Your task to perform on an android device: What's the price of the EGO 14-in 56-Volt Brushless Cordless Chainsaw? Image 0: 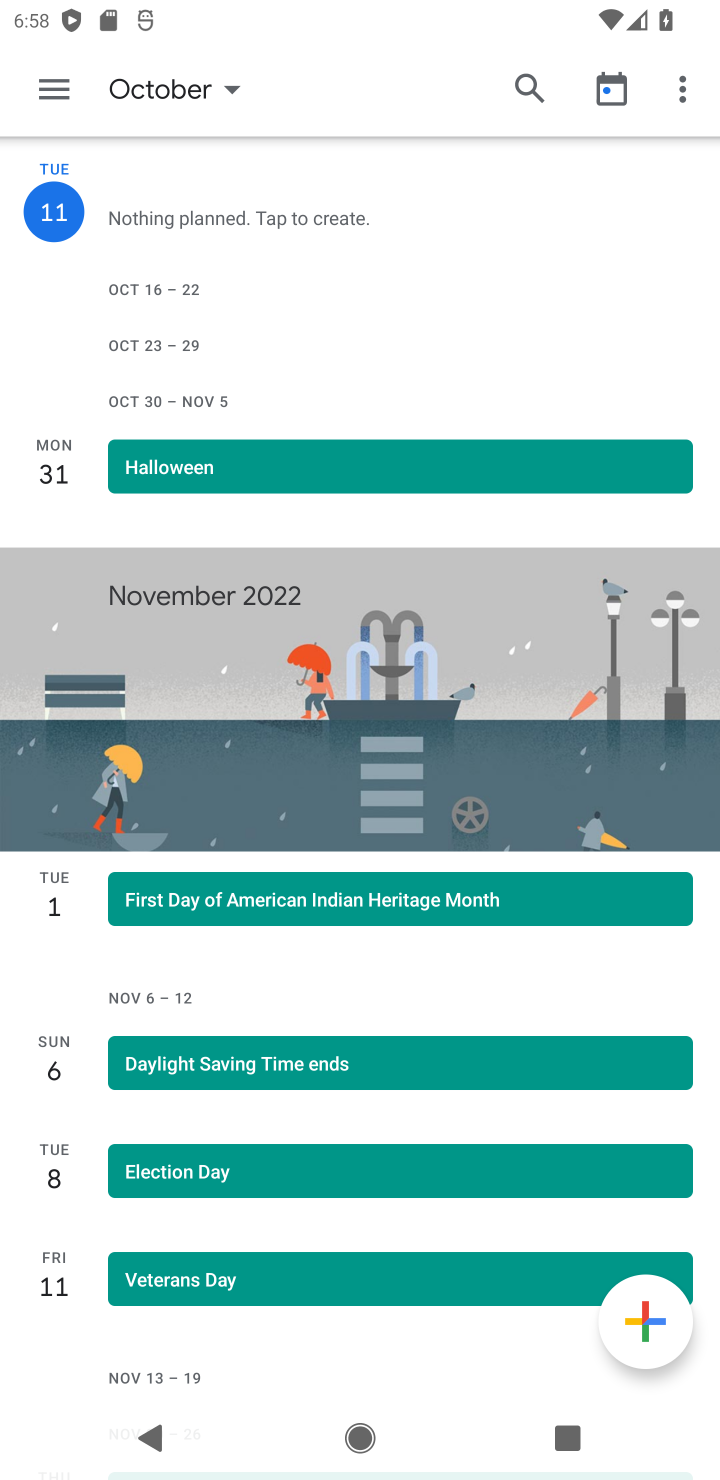
Step 0: press home button
Your task to perform on an android device: What's the price of the EGO 14-in 56-Volt Brushless Cordless Chainsaw? Image 1: 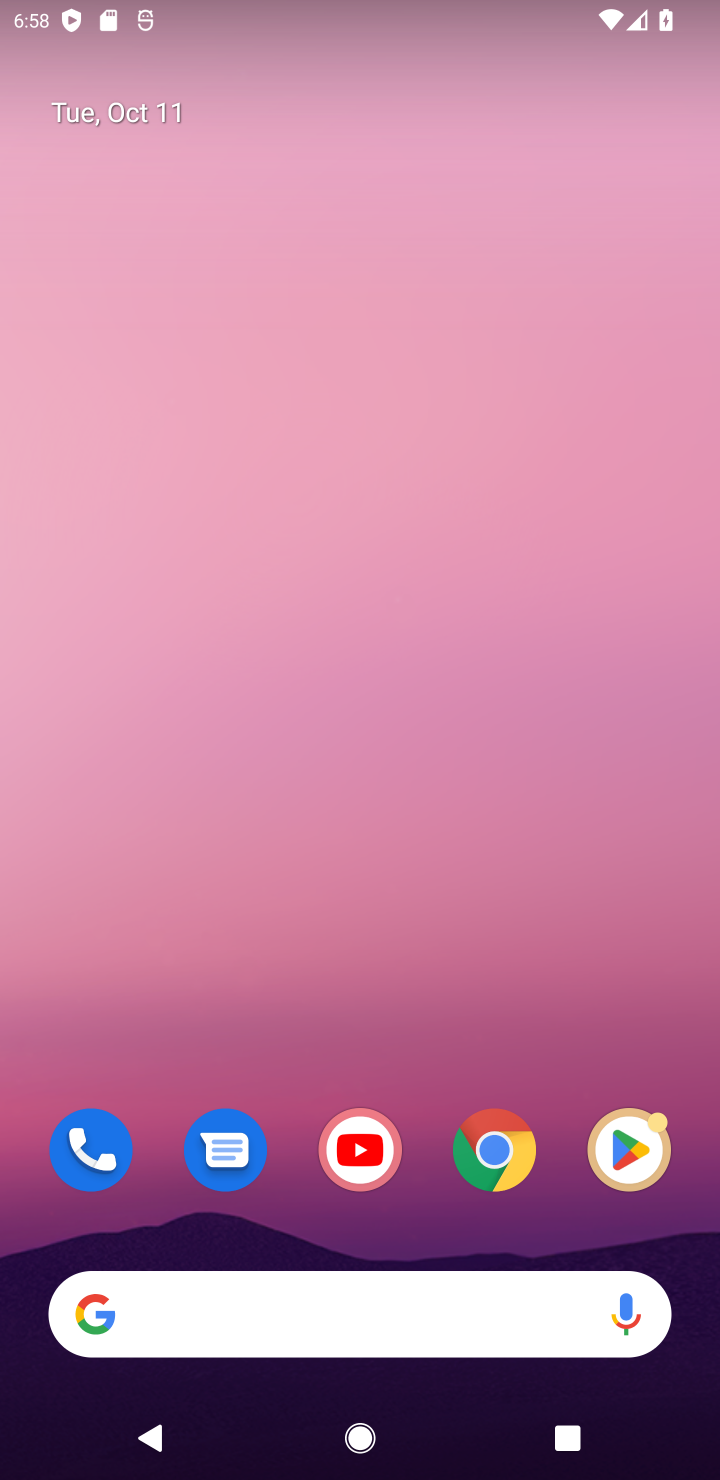
Step 1: click (492, 1178)
Your task to perform on an android device: What's the price of the EGO 14-in 56-Volt Brushless Cordless Chainsaw? Image 2: 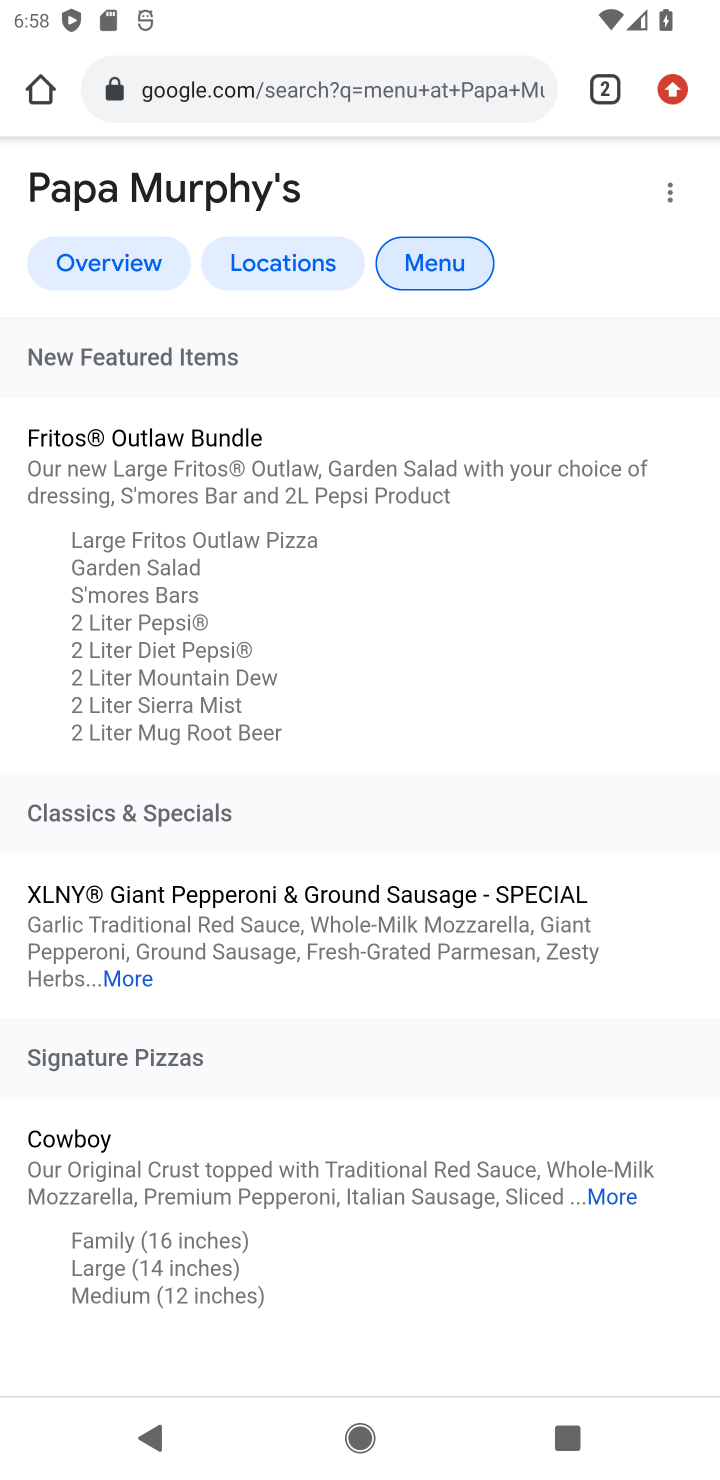
Step 2: click (249, 90)
Your task to perform on an android device: What's the price of the EGO 14-in 56-Volt Brushless Cordless Chainsaw? Image 3: 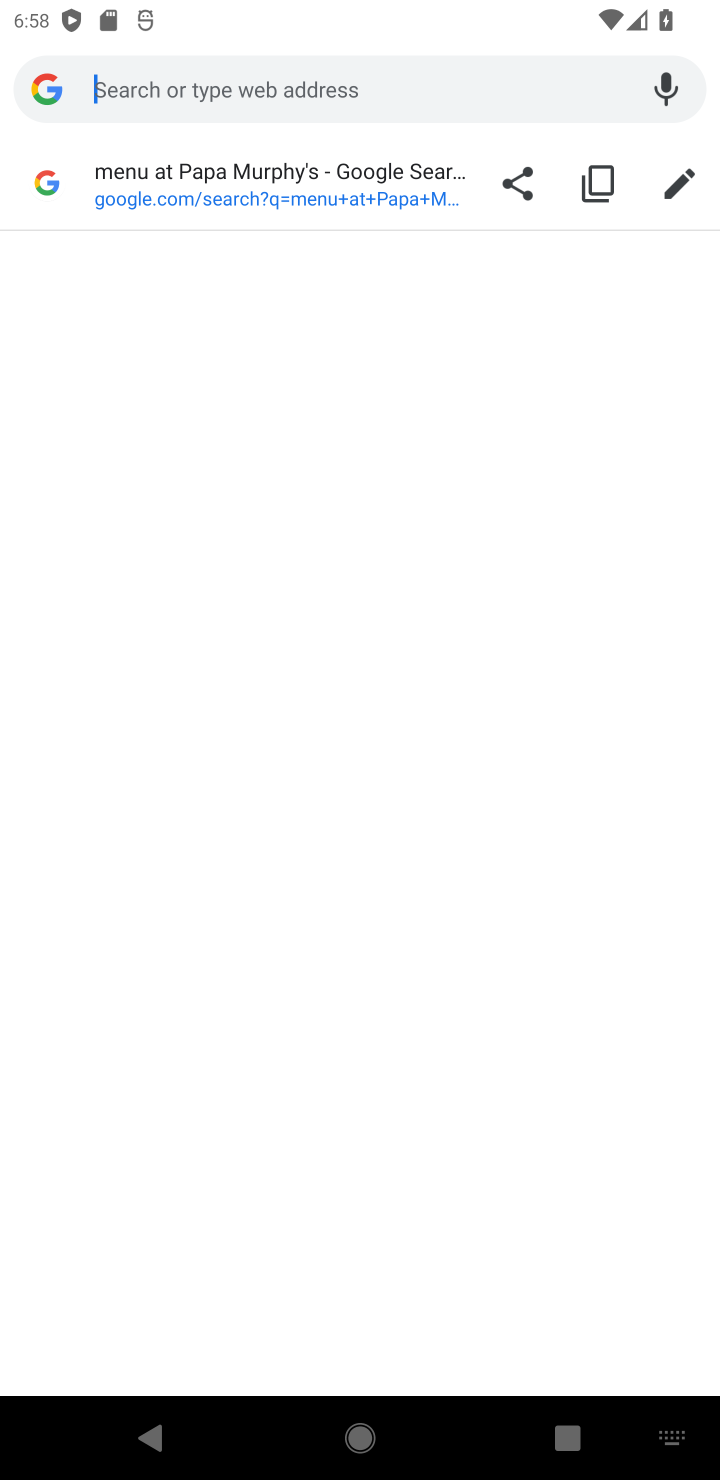
Step 3: type " price of the EGO 14-in 56-Volt Brushless Cordless Chainsaw"
Your task to perform on an android device: What's the price of the EGO 14-in 56-Volt Brushless Cordless Chainsaw? Image 4: 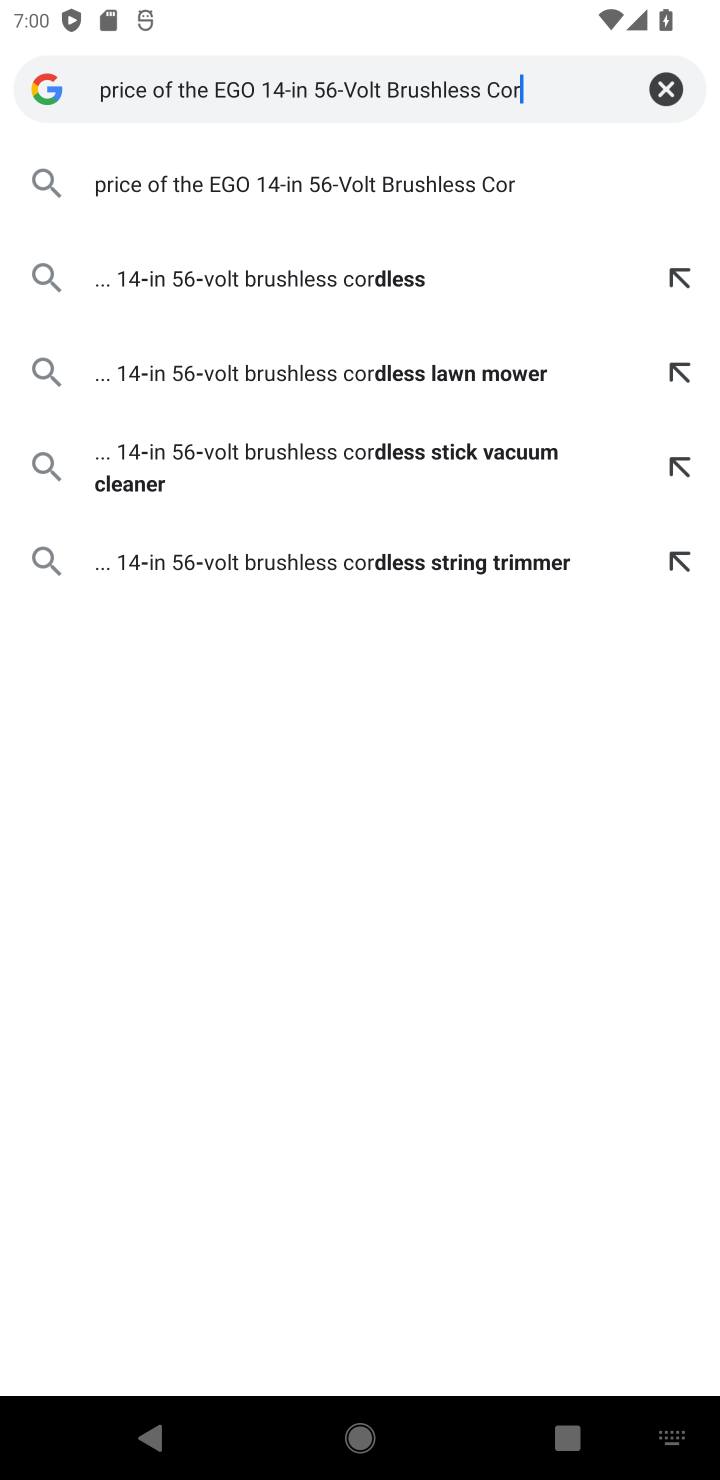
Step 4: type "dless chainsaw"
Your task to perform on an android device: What's the price of the EGO 14-in 56-Volt Brushless Cordless Chainsaw? Image 5: 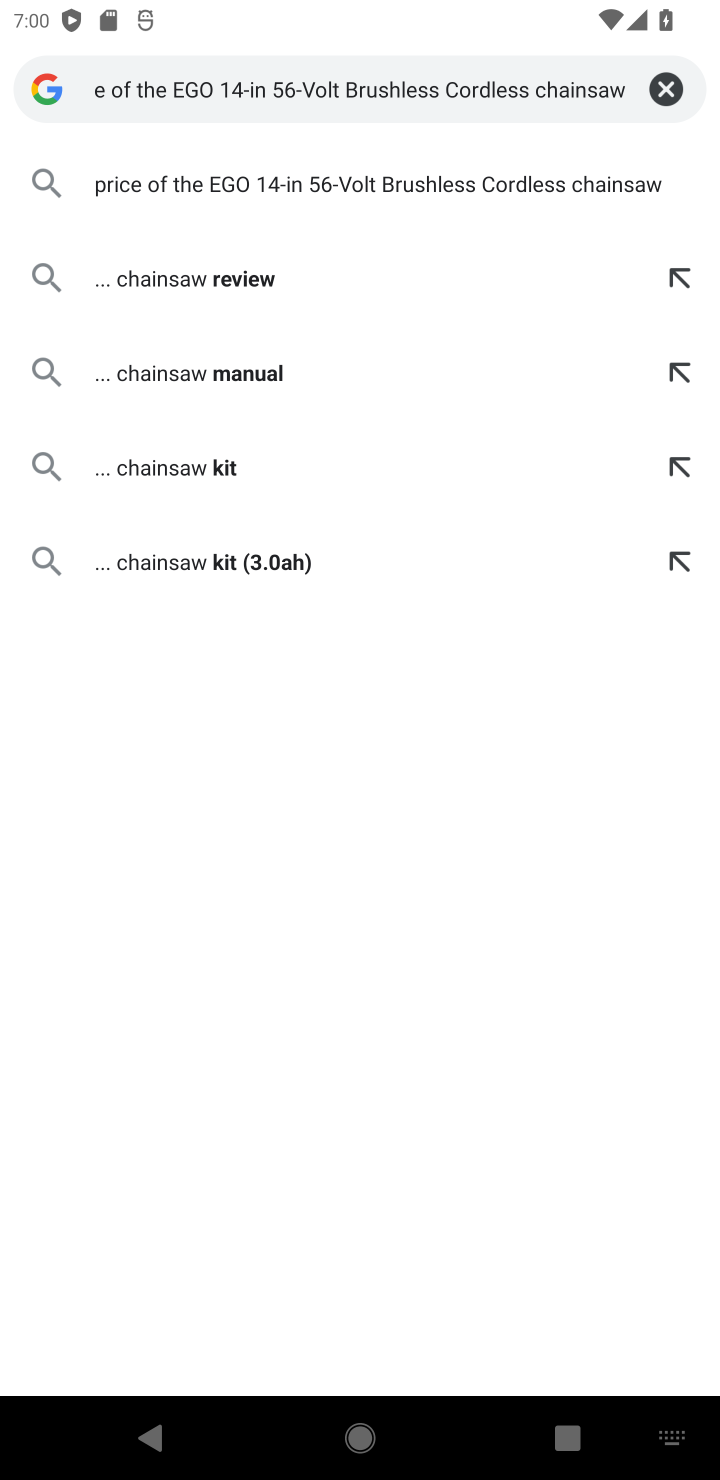
Step 5: click (316, 193)
Your task to perform on an android device: What's the price of the EGO 14-in 56-Volt Brushless Cordless Chainsaw? Image 6: 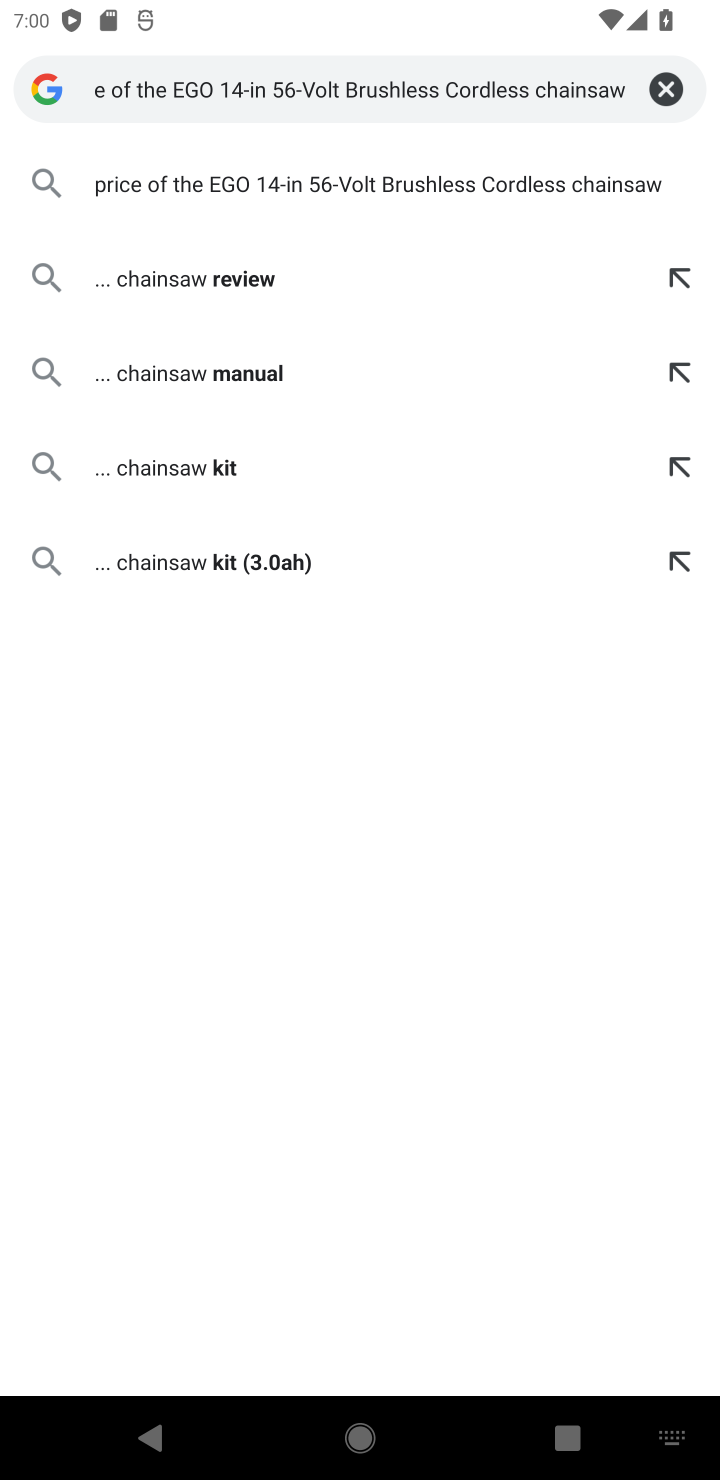
Step 6: click (250, 189)
Your task to perform on an android device: What's the price of the EGO 14-in 56-Volt Brushless Cordless Chainsaw? Image 7: 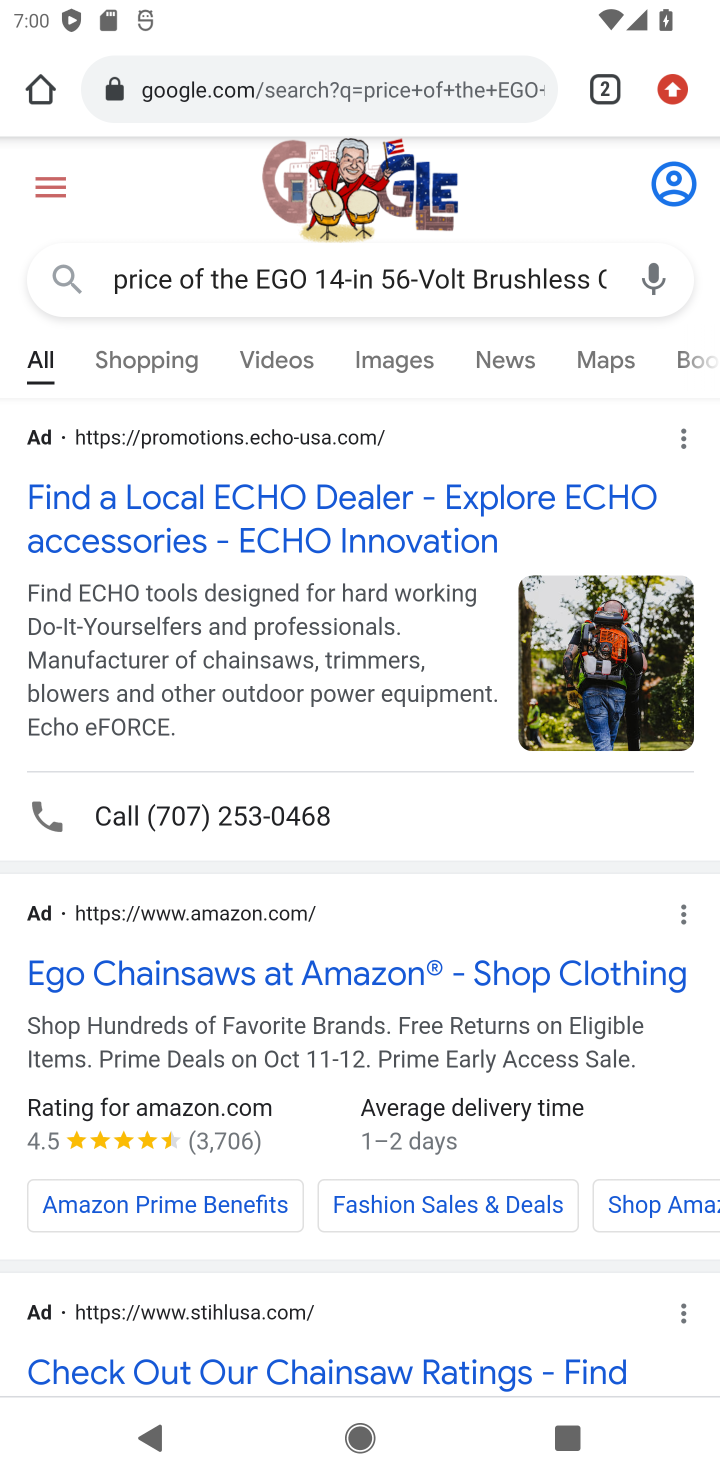
Step 7: drag from (364, 826) to (338, 477)
Your task to perform on an android device: What's the price of the EGO 14-in 56-Volt Brushless Cordless Chainsaw? Image 8: 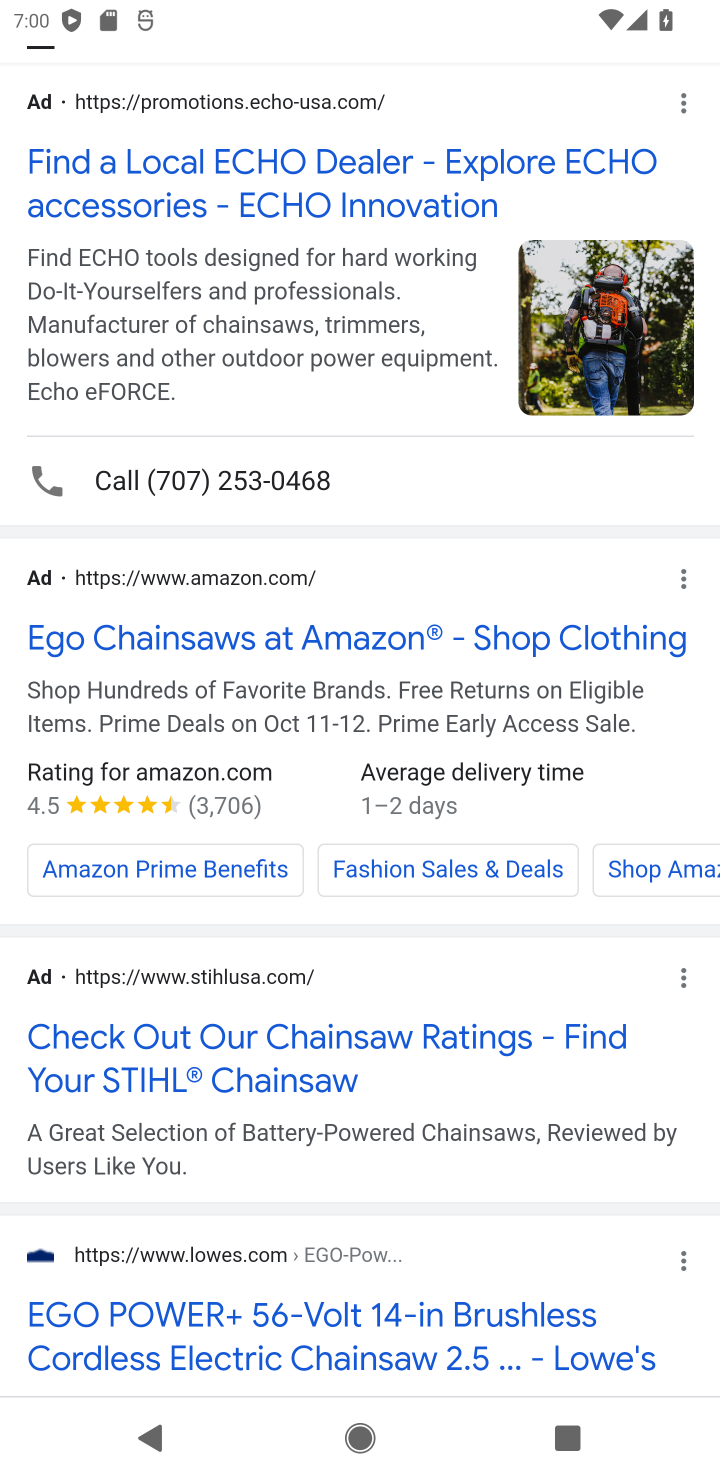
Step 8: drag from (372, 955) to (330, 511)
Your task to perform on an android device: What's the price of the EGO 14-in 56-Volt Brushless Cordless Chainsaw? Image 9: 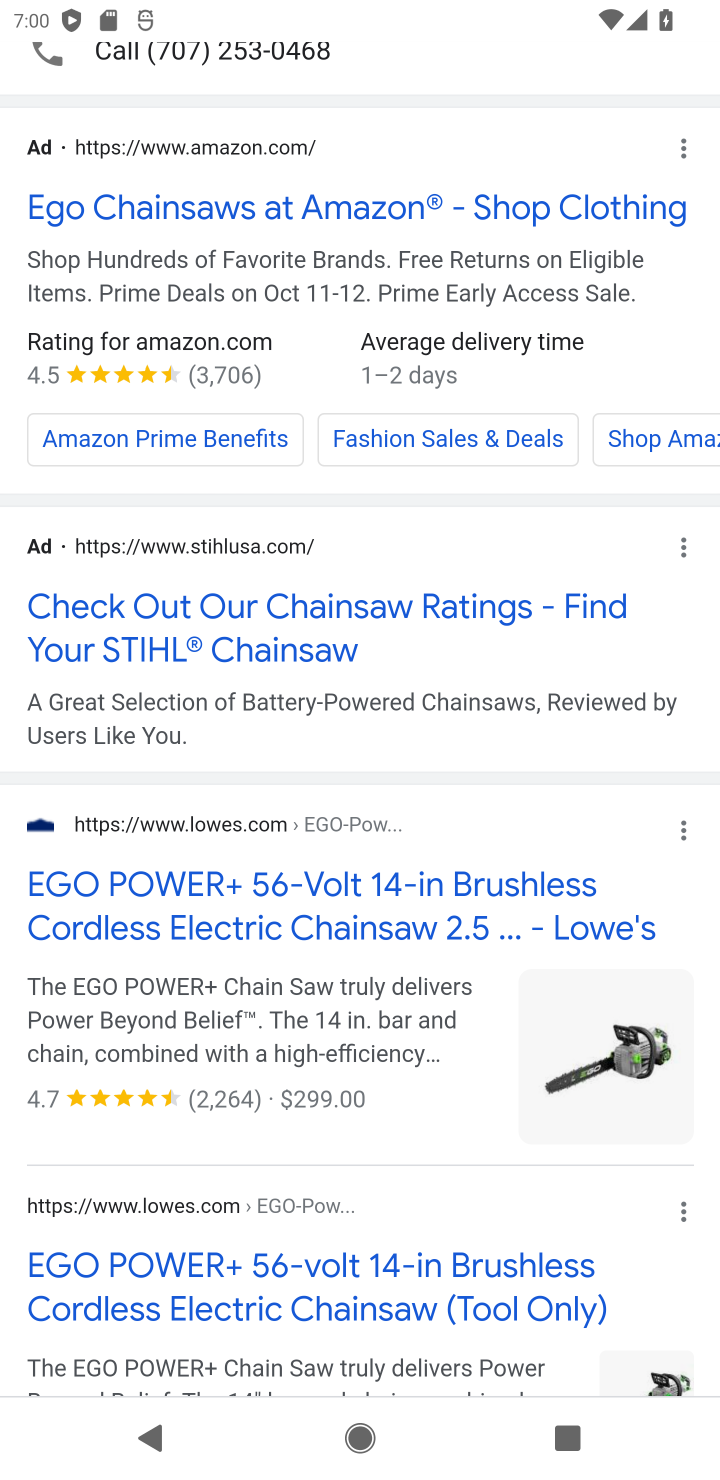
Step 9: click (275, 904)
Your task to perform on an android device: What's the price of the EGO 14-in 56-Volt Brushless Cordless Chainsaw? Image 10: 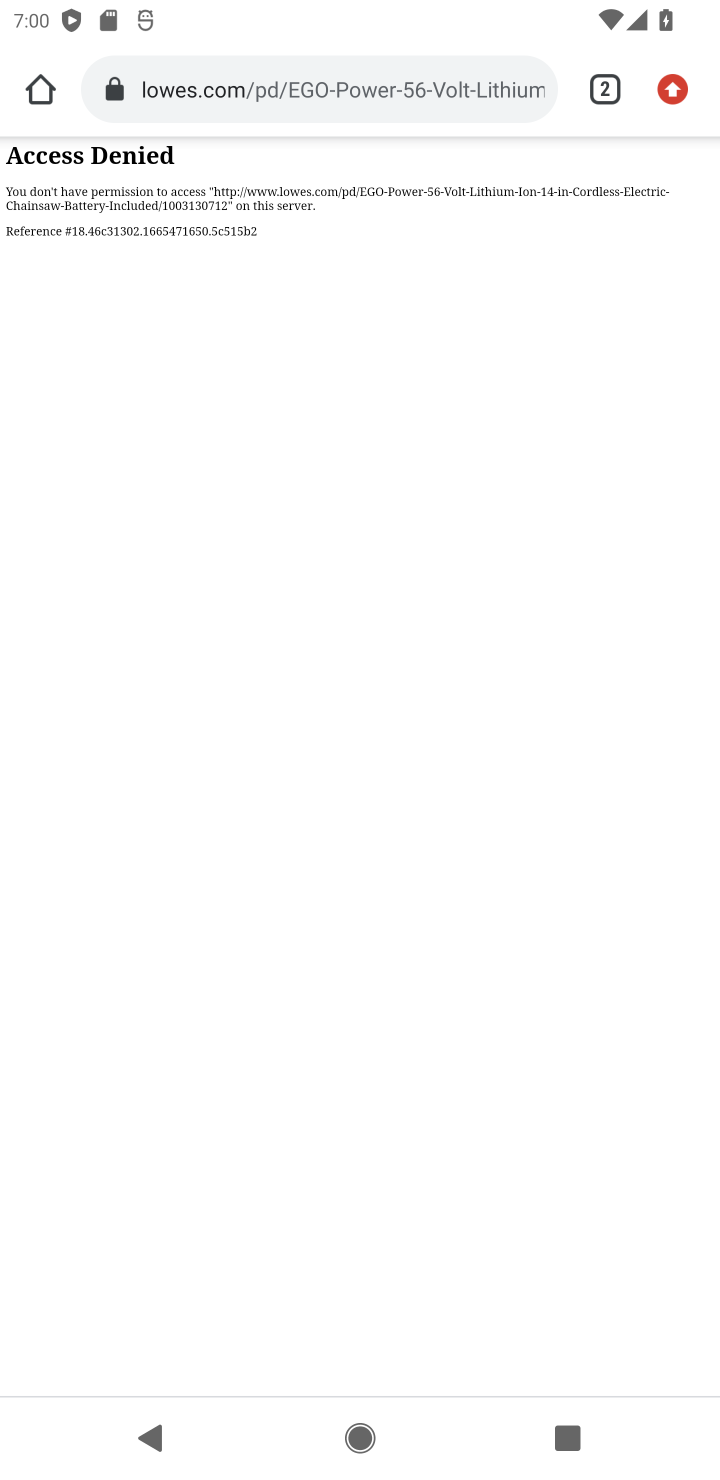
Step 10: press back button
Your task to perform on an android device: What's the price of the EGO 14-in 56-Volt Brushless Cordless Chainsaw? Image 11: 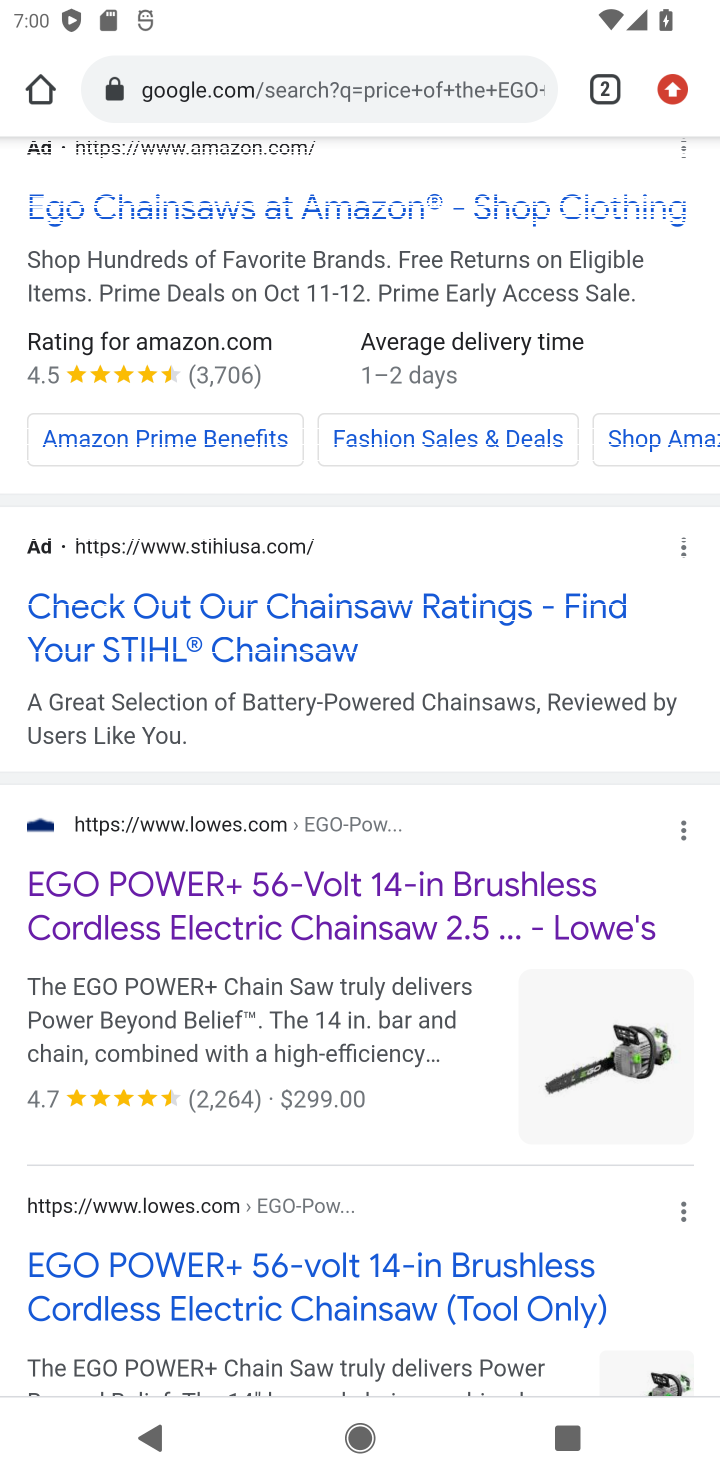
Step 11: drag from (258, 697) to (253, 1020)
Your task to perform on an android device: What's the price of the EGO 14-in 56-Volt Brushless Cordless Chainsaw? Image 12: 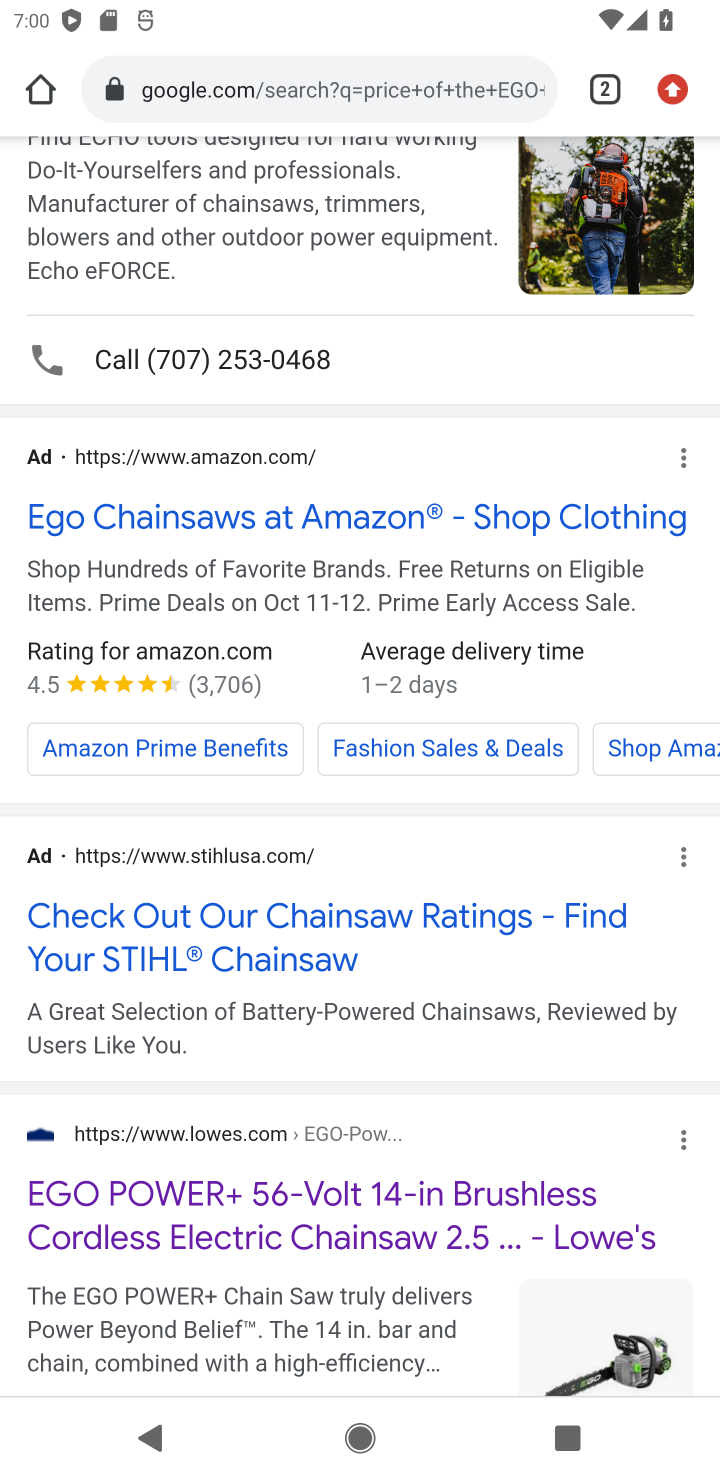
Step 12: drag from (251, 667) to (260, 968)
Your task to perform on an android device: What's the price of the EGO 14-in 56-Volt Brushless Cordless Chainsaw? Image 13: 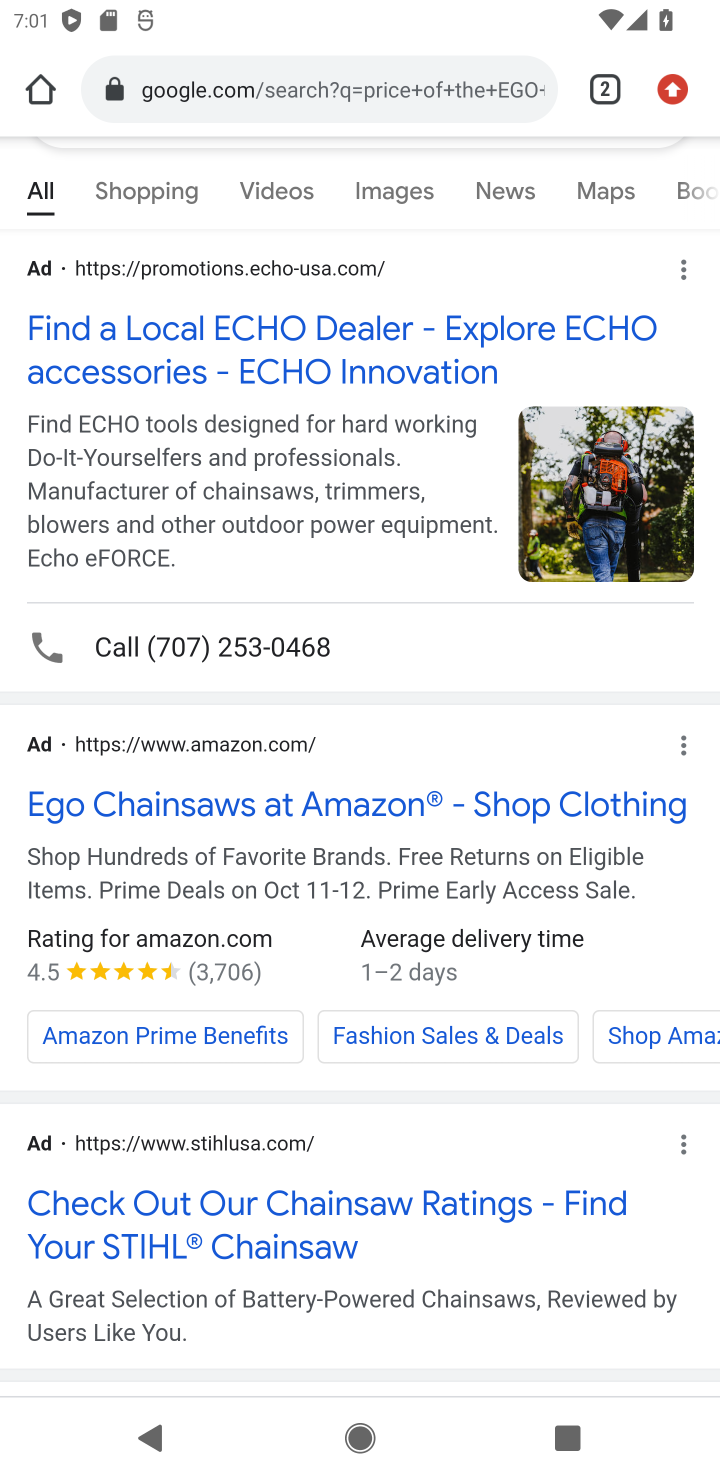
Step 13: click (197, 371)
Your task to perform on an android device: What's the price of the EGO 14-in 56-Volt Brushless Cordless Chainsaw? Image 14: 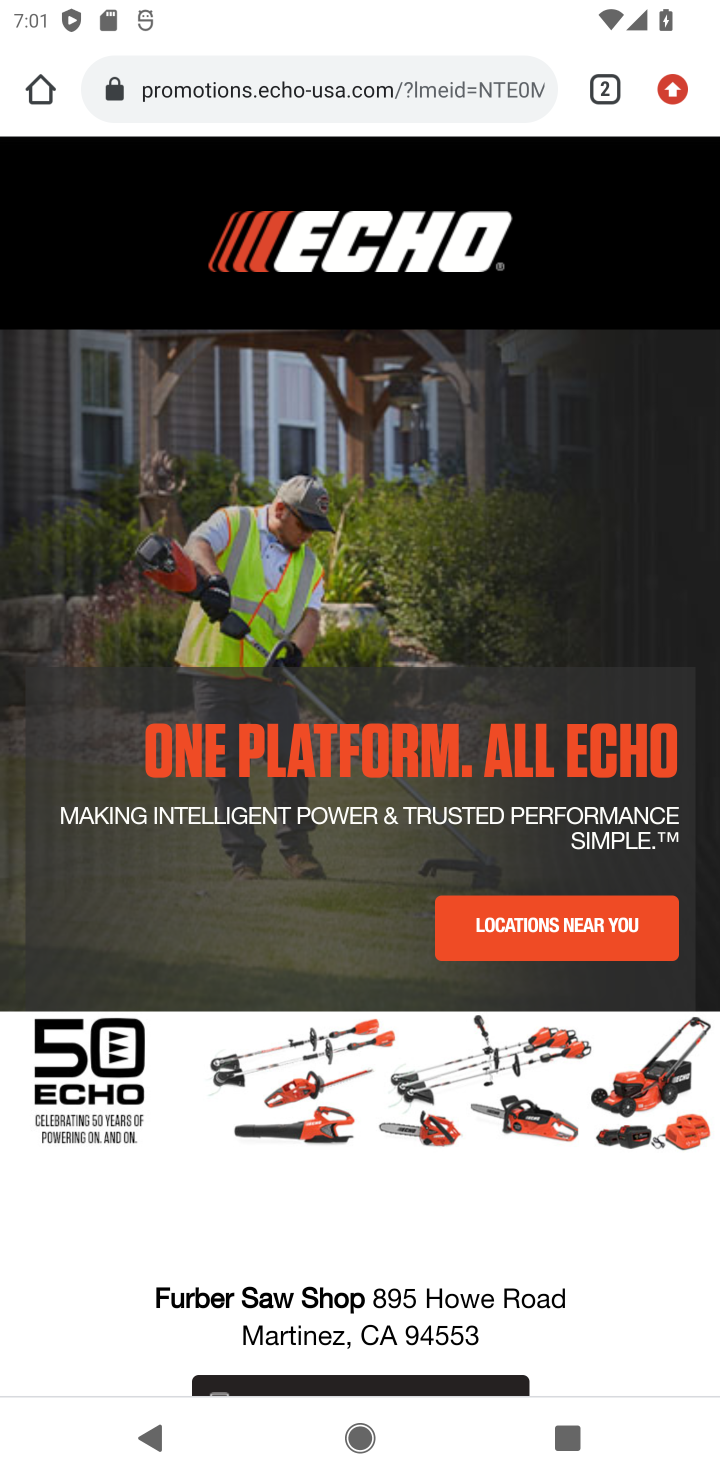
Step 14: drag from (402, 1005) to (347, 491)
Your task to perform on an android device: What's the price of the EGO 14-in 56-Volt Brushless Cordless Chainsaw? Image 15: 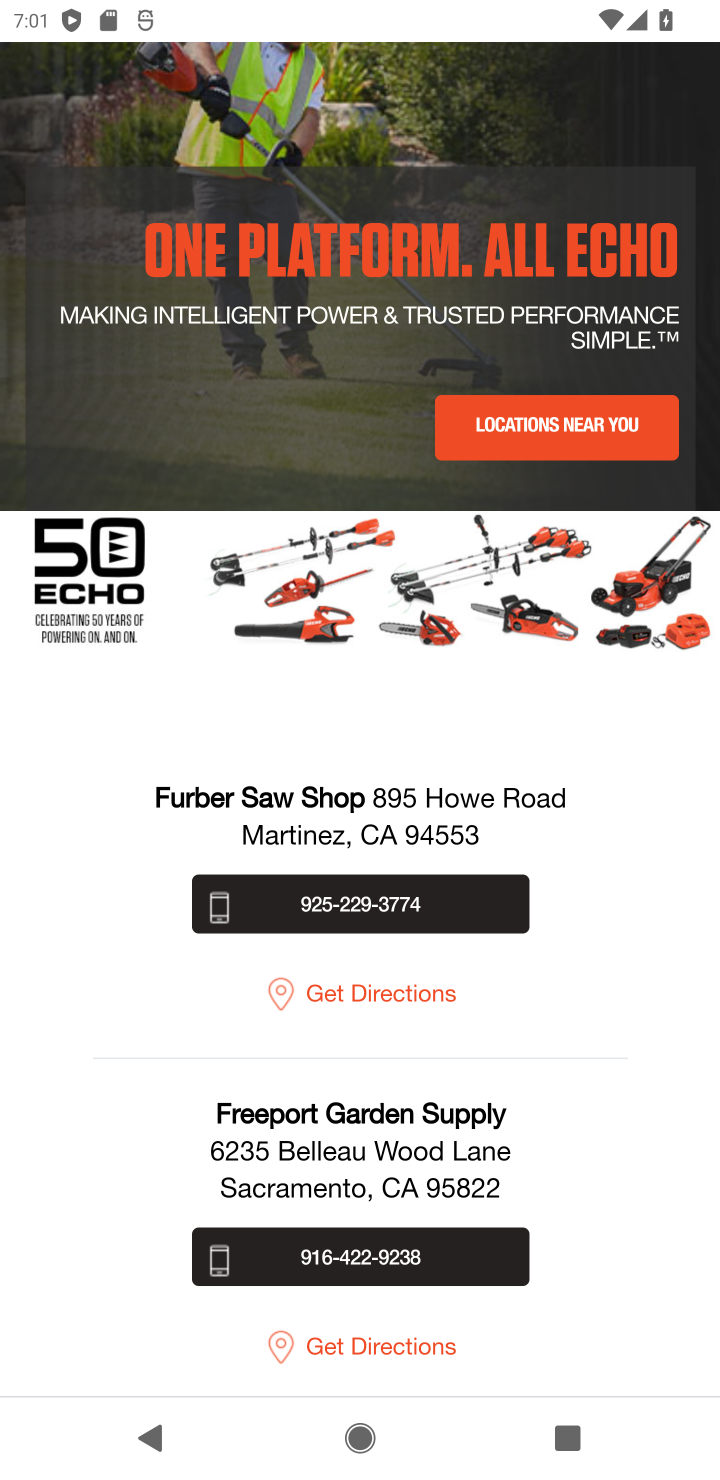
Step 15: press back button
Your task to perform on an android device: What's the price of the EGO 14-in 56-Volt Brushless Cordless Chainsaw? Image 16: 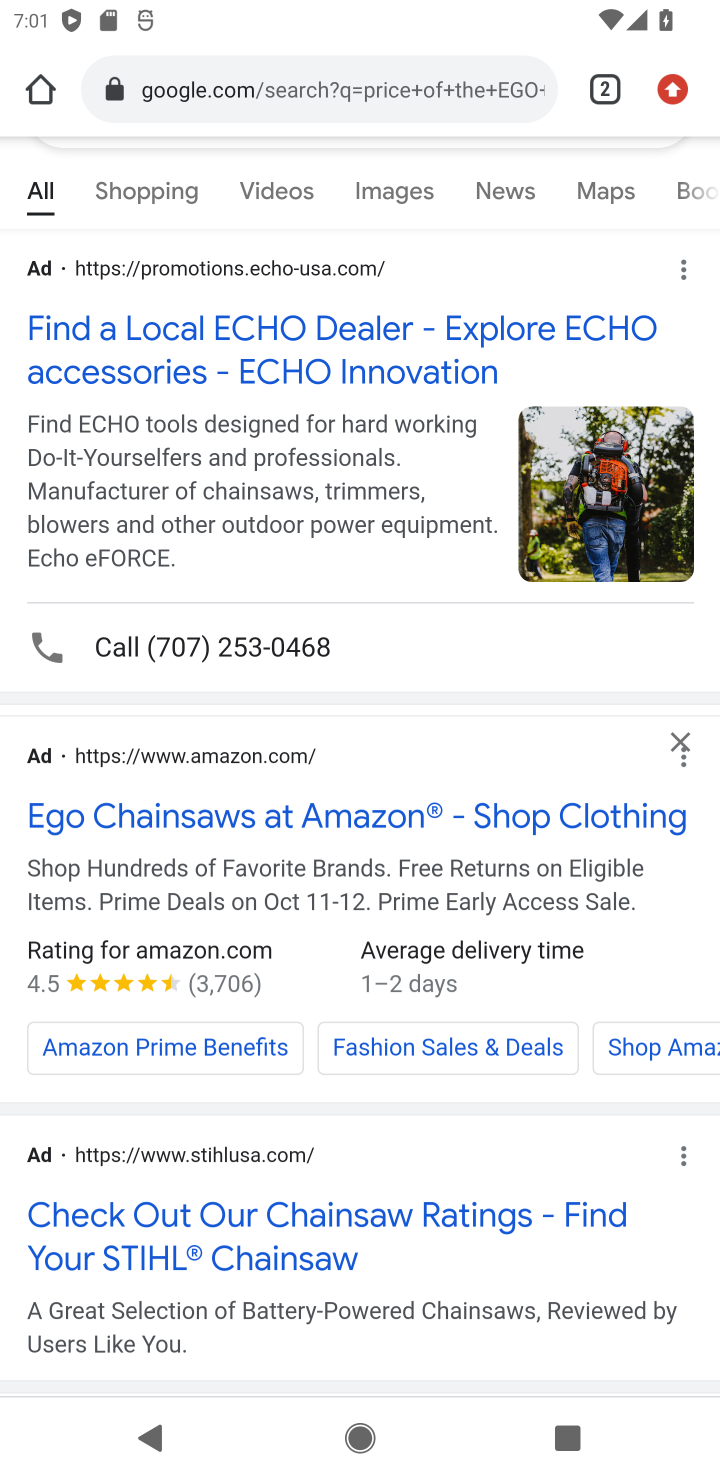
Step 16: click (151, 191)
Your task to perform on an android device: What's the price of the EGO 14-in 56-Volt Brushless Cordless Chainsaw? Image 17: 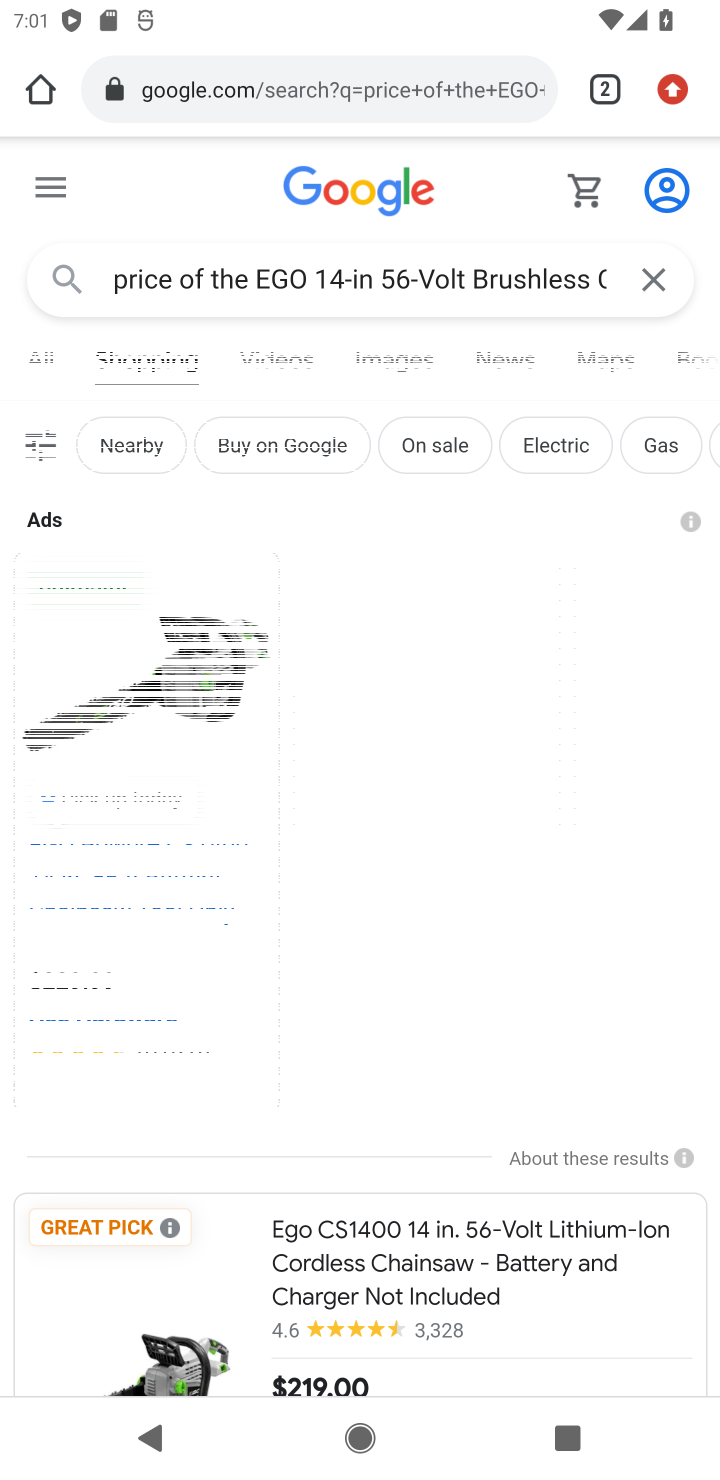
Step 17: task complete